Your task to perform on an android device: empty trash in the gmail app Image 0: 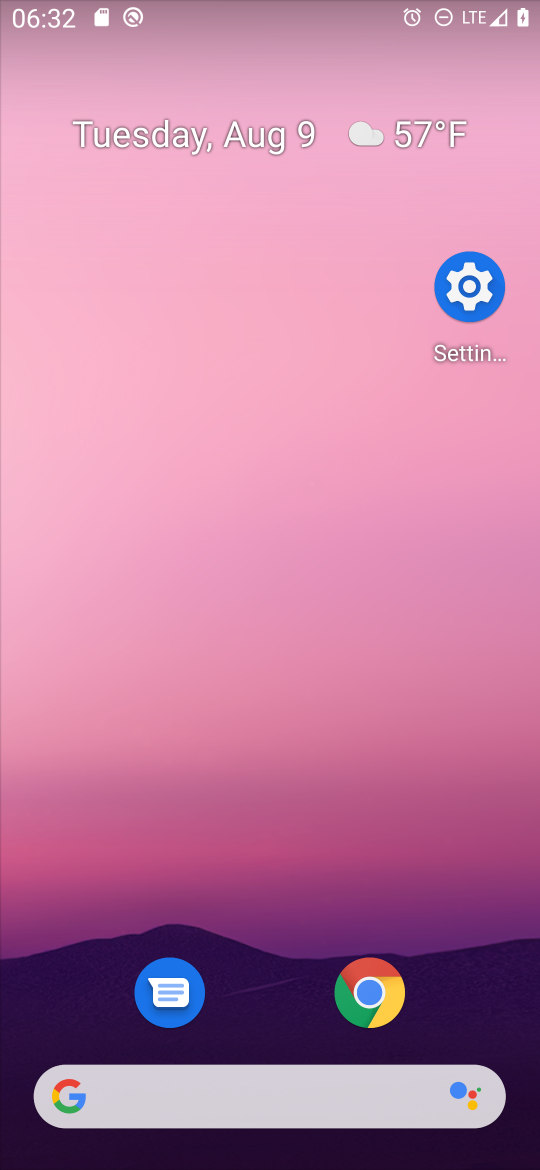
Step 0: drag from (244, 1083) to (150, 324)
Your task to perform on an android device: empty trash in the gmail app Image 1: 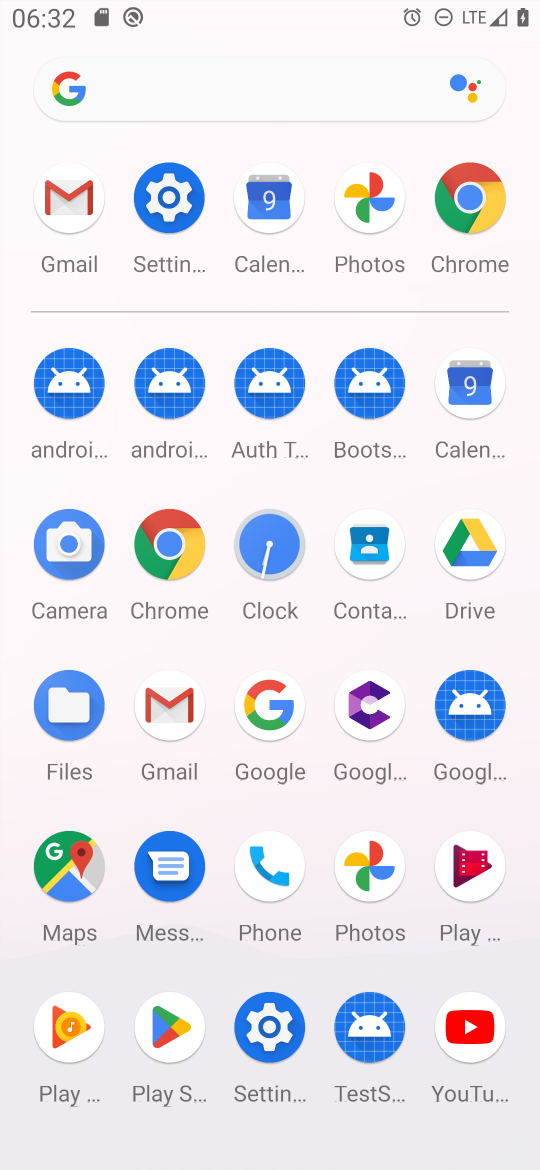
Step 1: click (152, 723)
Your task to perform on an android device: empty trash in the gmail app Image 2: 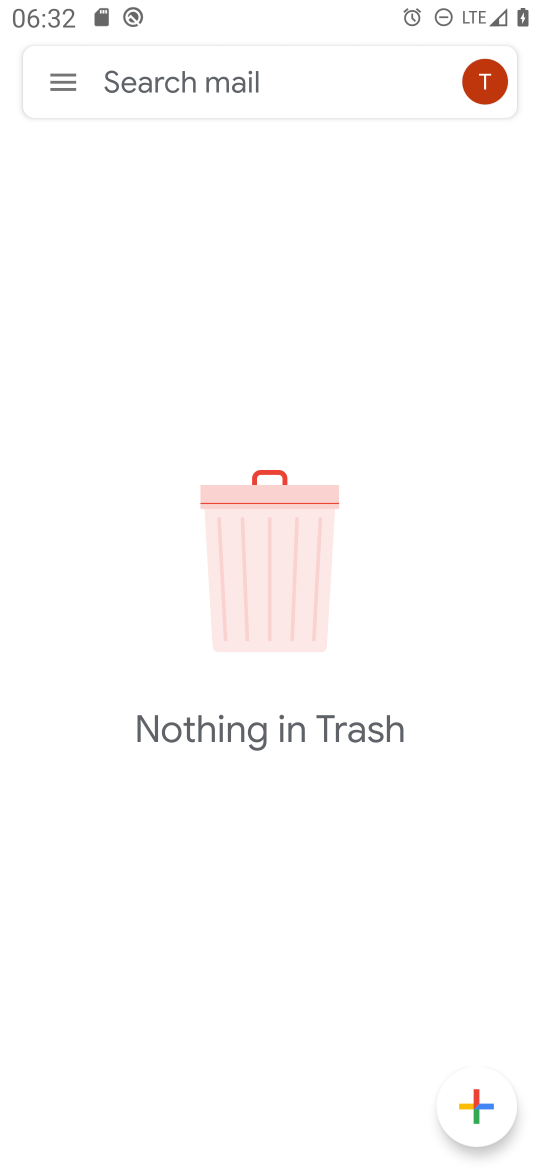
Step 2: click (55, 64)
Your task to perform on an android device: empty trash in the gmail app Image 3: 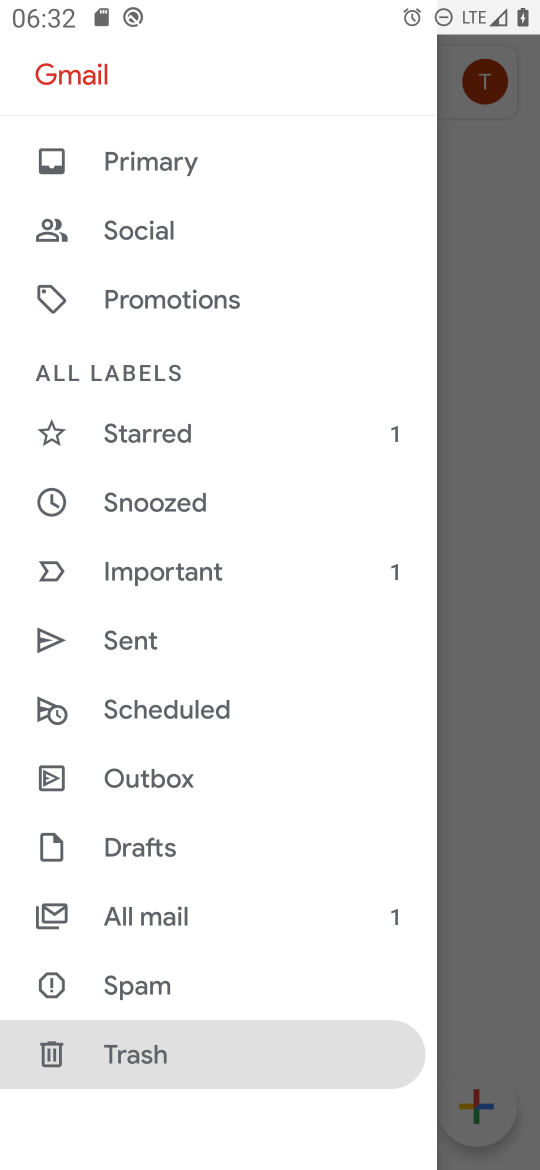
Step 3: click (133, 1057)
Your task to perform on an android device: empty trash in the gmail app Image 4: 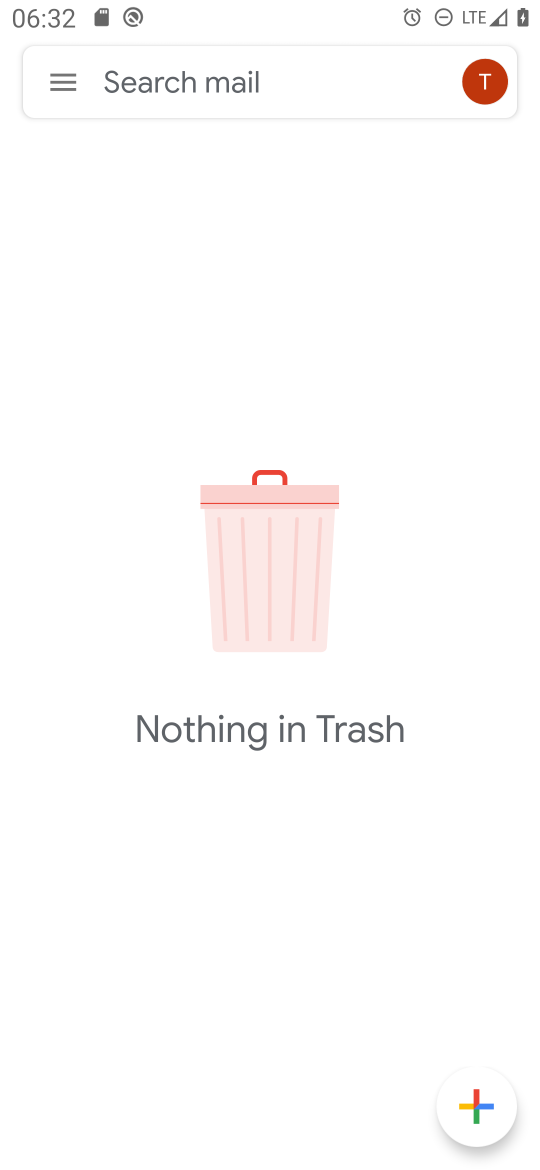
Step 4: task complete